Your task to perform on an android device: Do I have any events this weekend? Image 0: 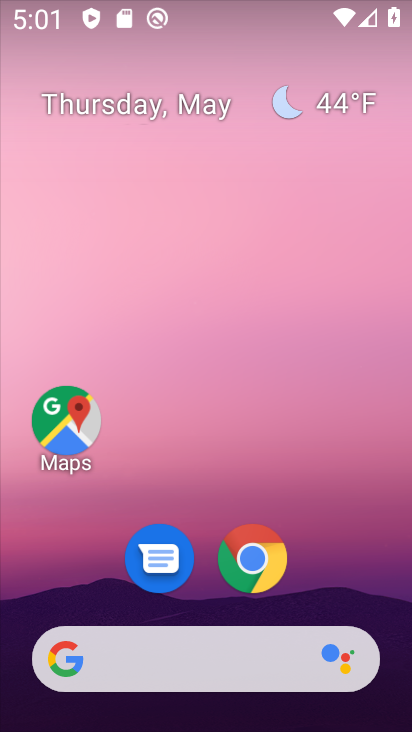
Step 0: drag from (311, 492) to (232, 19)
Your task to perform on an android device: Do I have any events this weekend? Image 1: 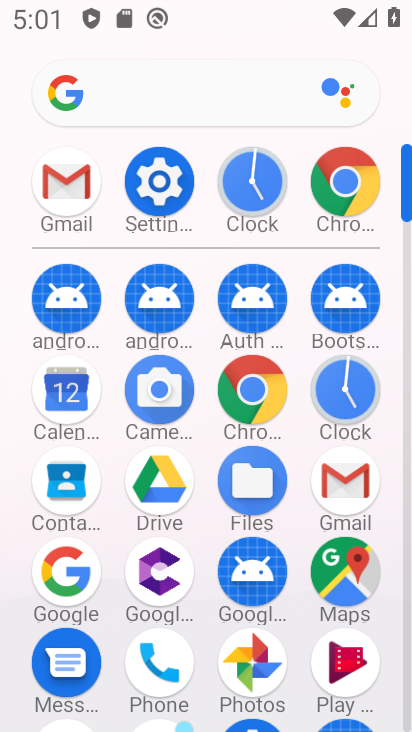
Step 1: drag from (4, 572) to (9, 235)
Your task to perform on an android device: Do I have any events this weekend? Image 2: 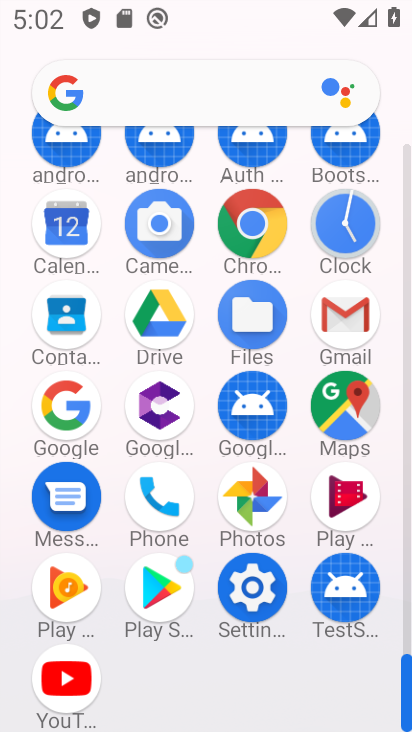
Step 2: click (60, 216)
Your task to perform on an android device: Do I have any events this weekend? Image 3: 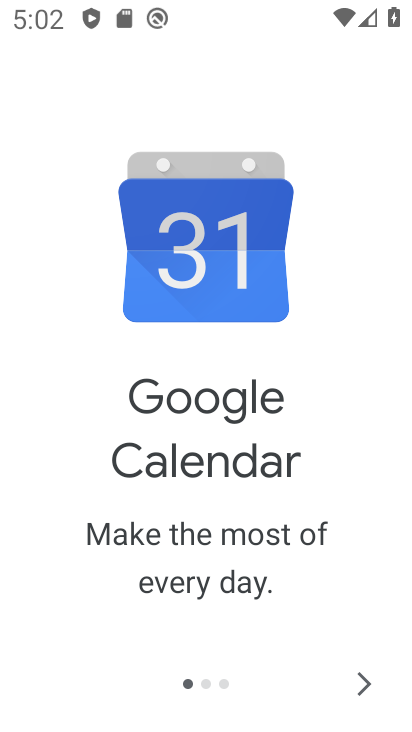
Step 3: click (366, 685)
Your task to perform on an android device: Do I have any events this weekend? Image 4: 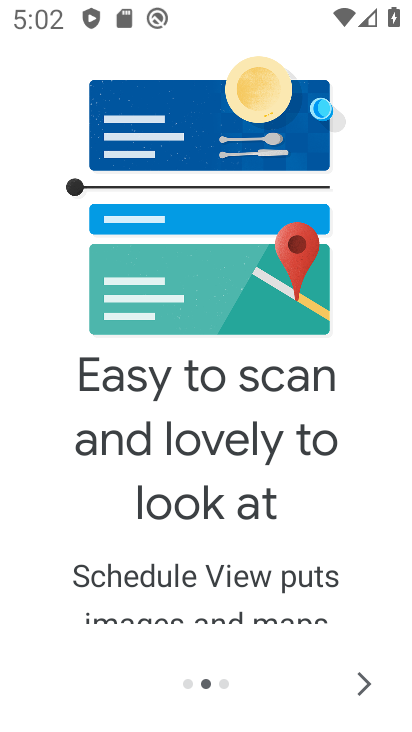
Step 4: click (366, 685)
Your task to perform on an android device: Do I have any events this weekend? Image 5: 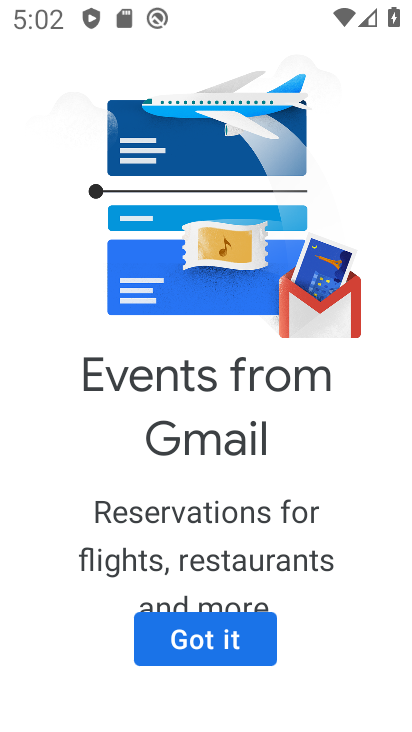
Step 5: click (189, 611)
Your task to perform on an android device: Do I have any events this weekend? Image 6: 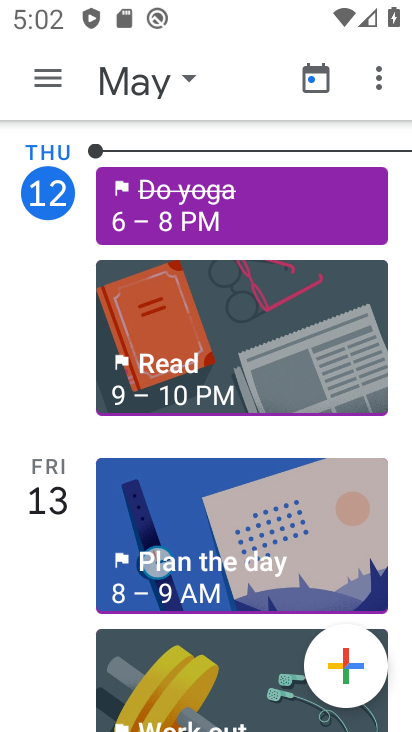
Step 6: click (164, 84)
Your task to perform on an android device: Do I have any events this weekend? Image 7: 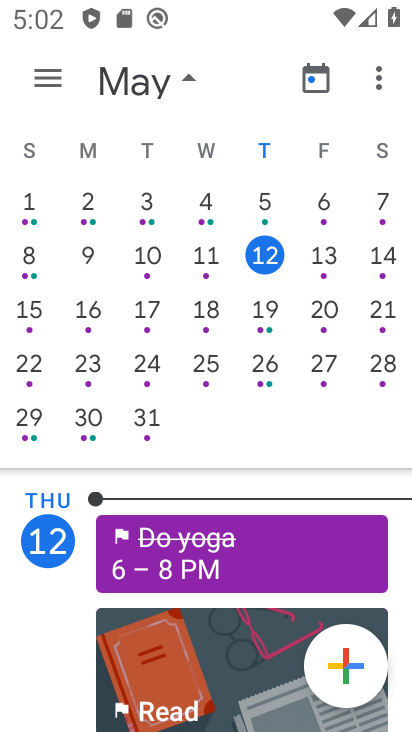
Step 7: click (50, 76)
Your task to perform on an android device: Do I have any events this weekend? Image 8: 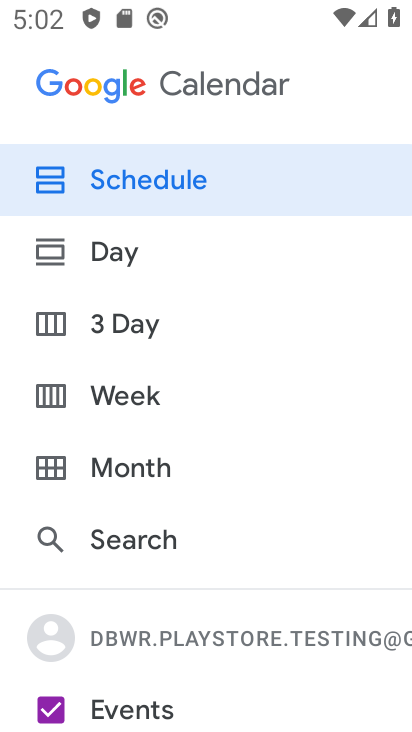
Step 8: click (138, 389)
Your task to perform on an android device: Do I have any events this weekend? Image 9: 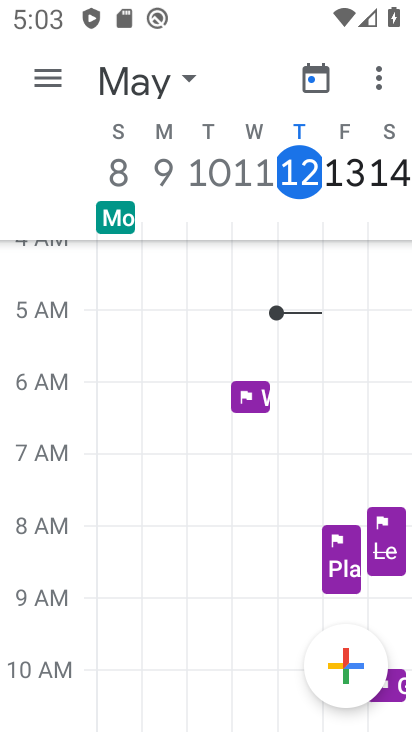
Step 9: click (379, 165)
Your task to perform on an android device: Do I have any events this weekend? Image 10: 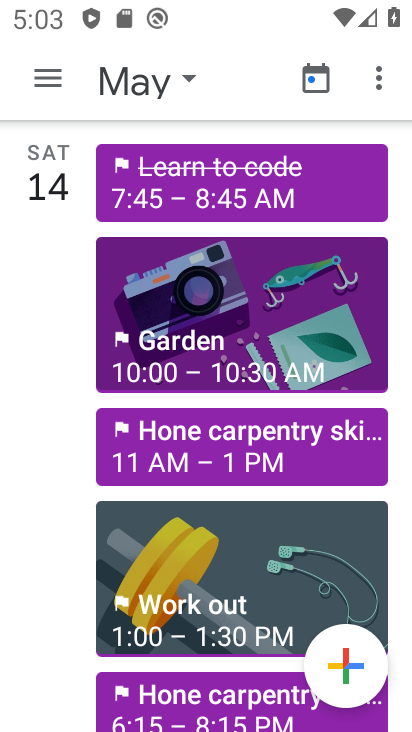
Step 10: task complete